Your task to perform on an android device: What are the best selling refrigerators at Lowes? Image 0: 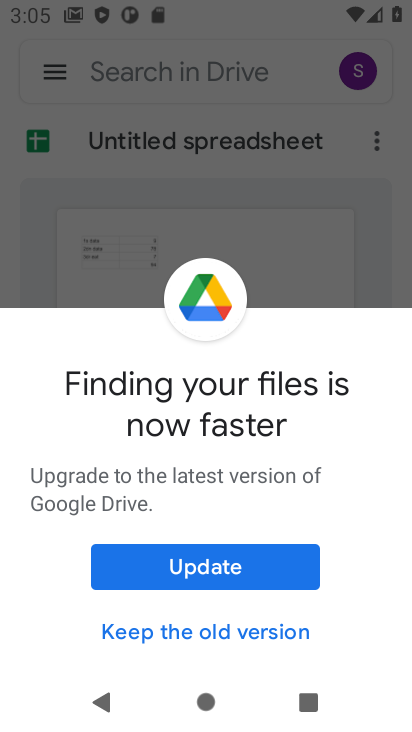
Step 0: press home button
Your task to perform on an android device: What are the best selling refrigerators at Lowes? Image 1: 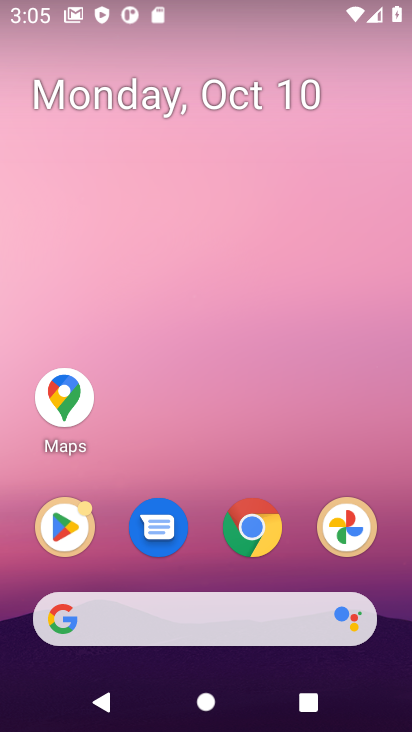
Step 1: click (264, 626)
Your task to perform on an android device: What are the best selling refrigerators at Lowes? Image 2: 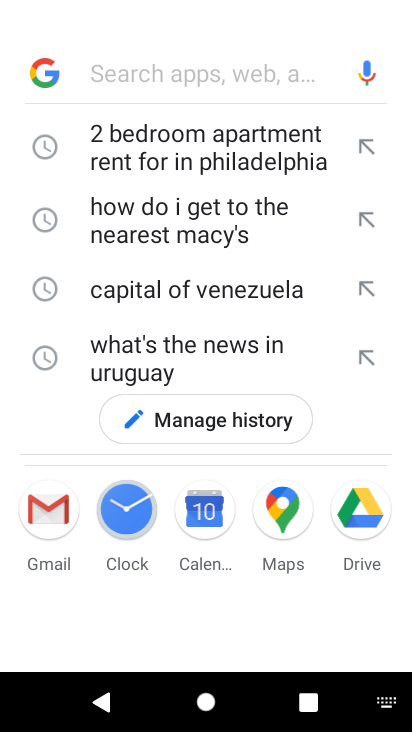
Step 2: type "What are the best selling refrigerators at Lowes"
Your task to perform on an android device: What are the best selling refrigerators at Lowes? Image 3: 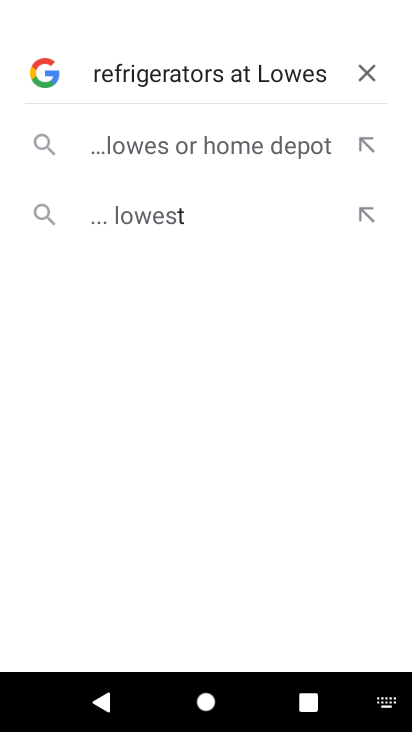
Step 3: press enter
Your task to perform on an android device: What are the best selling refrigerators at Lowes? Image 4: 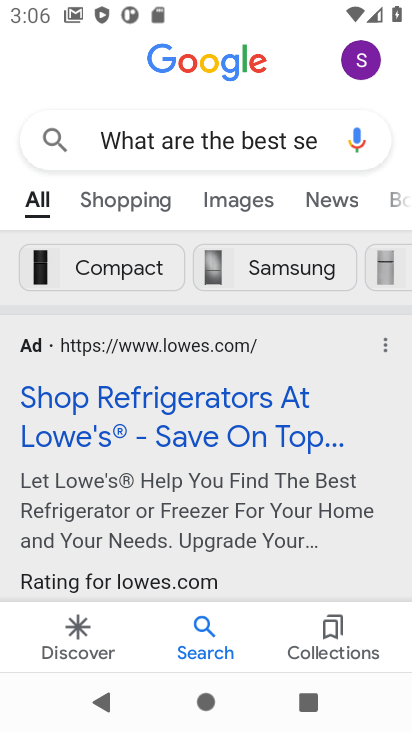
Step 4: drag from (266, 507) to (269, 401)
Your task to perform on an android device: What are the best selling refrigerators at Lowes? Image 5: 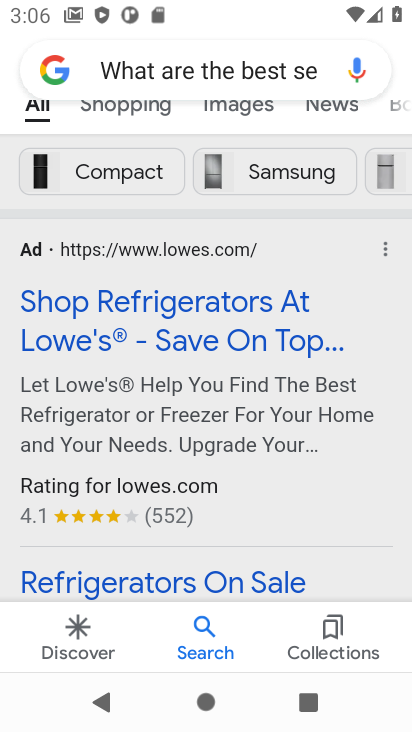
Step 5: click (204, 327)
Your task to perform on an android device: What are the best selling refrigerators at Lowes? Image 6: 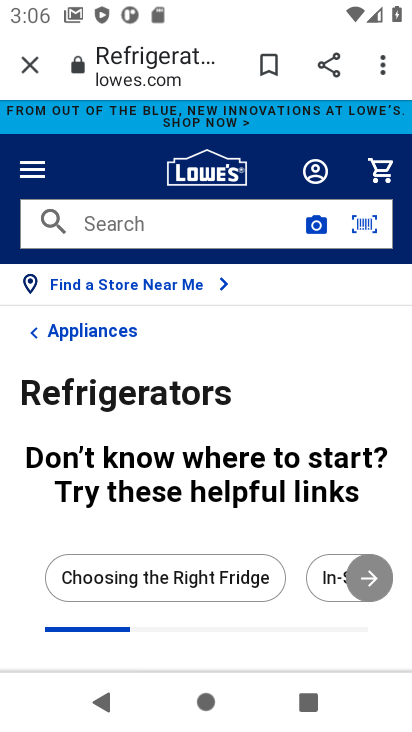
Step 6: task complete